Your task to perform on an android device: check data usage Image 0: 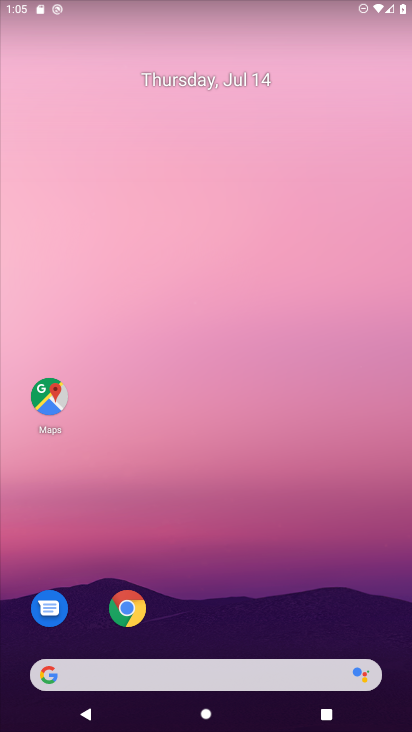
Step 0: drag from (228, 697) to (239, 84)
Your task to perform on an android device: check data usage Image 1: 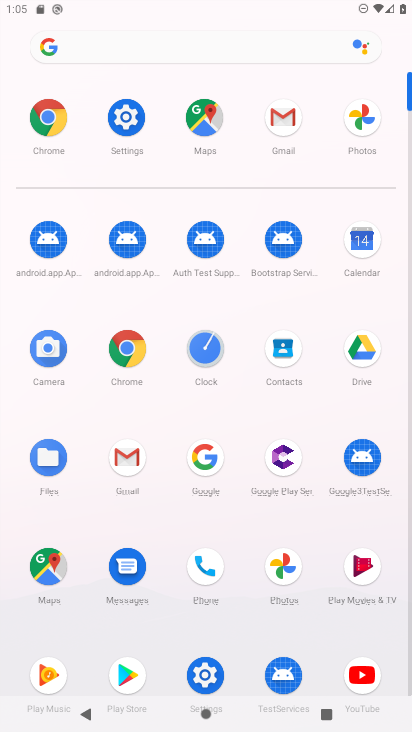
Step 1: click (124, 119)
Your task to perform on an android device: check data usage Image 2: 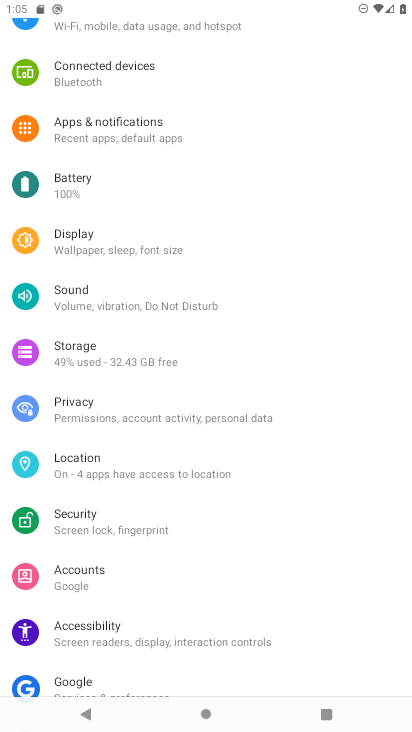
Step 2: drag from (153, 81) to (171, 460)
Your task to perform on an android device: check data usage Image 3: 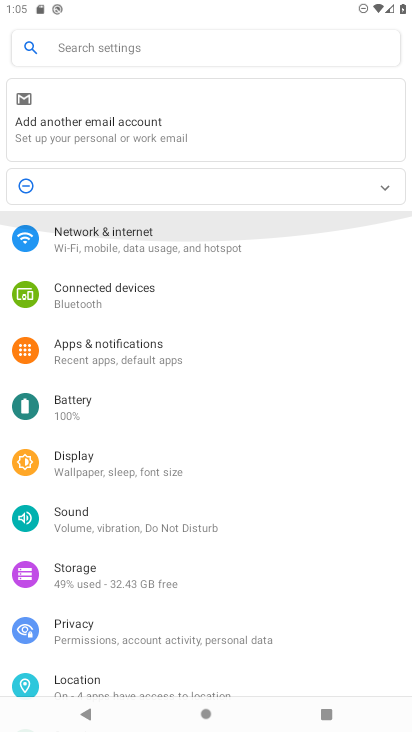
Step 3: click (172, 534)
Your task to perform on an android device: check data usage Image 4: 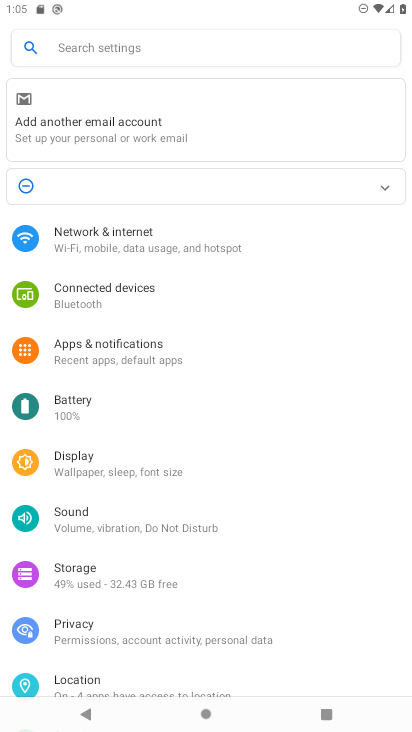
Step 4: click (108, 235)
Your task to perform on an android device: check data usage Image 5: 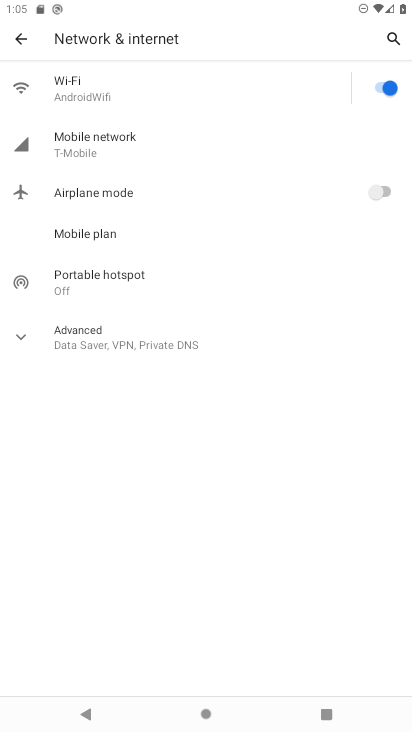
Step 5: click (97, 143)
Your task to perform on an android device: check data usage Image 6: 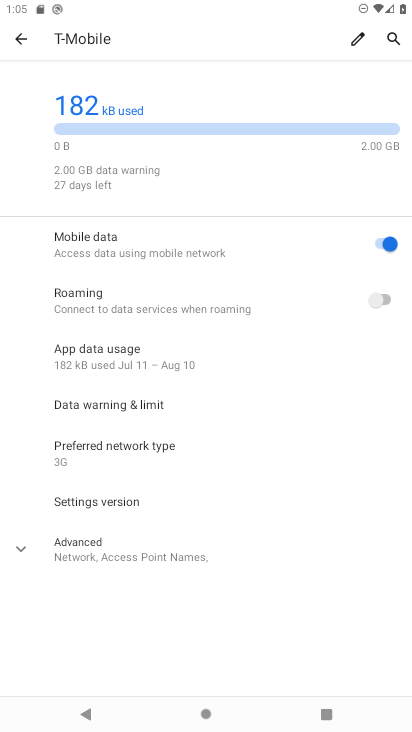
Step 6: click (120, 349)
Your task to perform on an android device: check data usage Image 7: 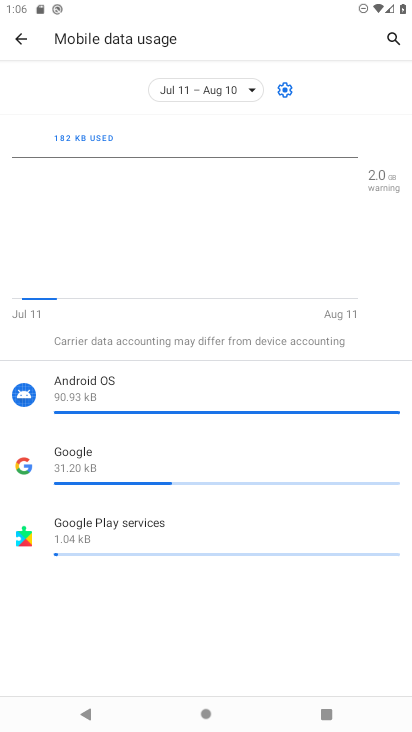
Step 7: task complete